Your task to perform on an android device: check out phone information Image 0: 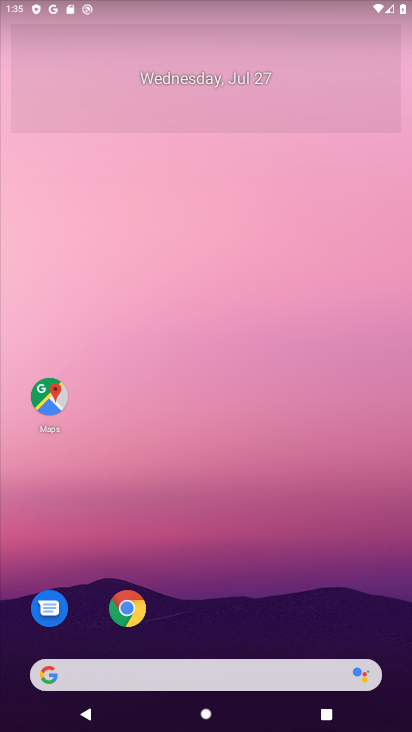
Step 0: drag from (17, 687) to (382, 17)
Your task to perform on an android device: check out phone information Image 1: 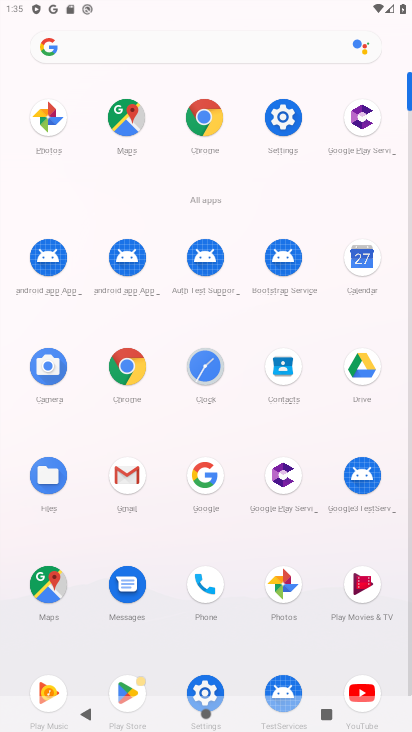
Step 1: click (209, 582)
Your task to perform on an android device: check out phone information Image 2: 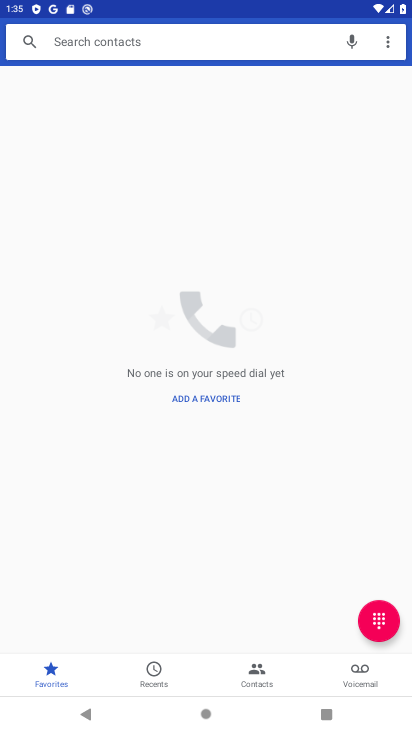
Step 2: click (269, 675)
Your task to perform on an android device: check out phone information Image 3: 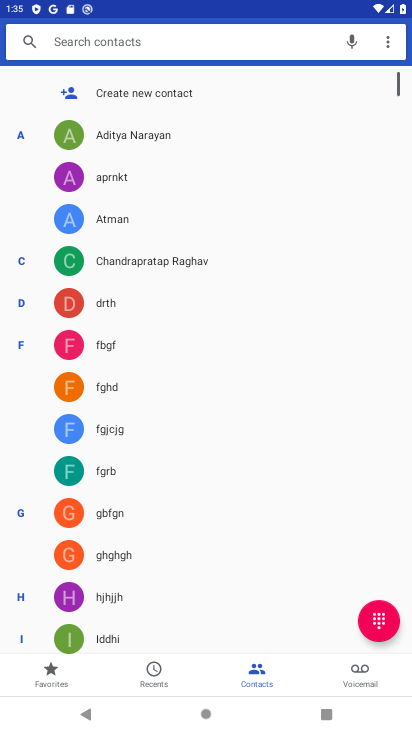
Step 3: task complete